Your task to perform on an android device: Clear all items from cart on newegg.com. Search for "logitech g pro" on newegg.com, select the first entry, add it to the cart, then select checkout. Image 0: 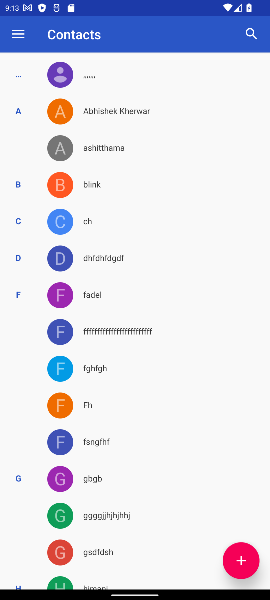
Step 0: press home button
Your task to perform on an android device: Clear all items from cart on newegg.com. Search for "logitech g pro" on newegg.com, select the first entry, add it to the cart, then select checkout. Image 1: 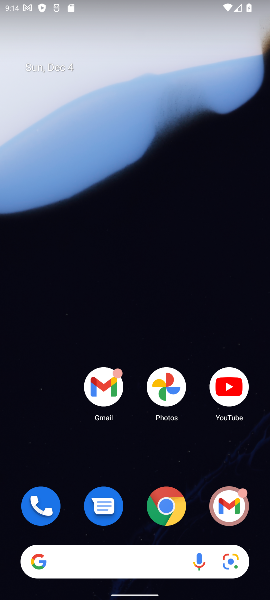
Step 1: click (166, 509)
Your task to perform on an android device: Clear all items from cart on newegg.com. Search for "logitech g pro" on newegg.com, select the first entry, add it to the cart, then select checkout. Image 2: 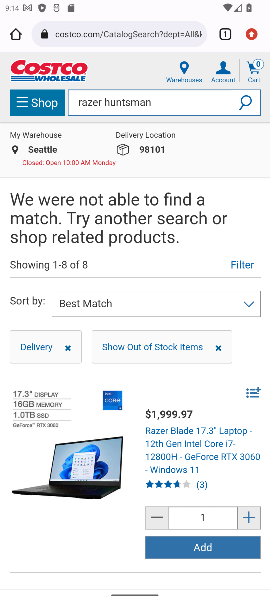
Step 2: click (142, 40)
Your task to perform on an android device: Clear all items from cart on newegg.com. Search for "logitech g pro" on newegg.com, select the first entry, add it to the cart, then select checkout. Image 3: 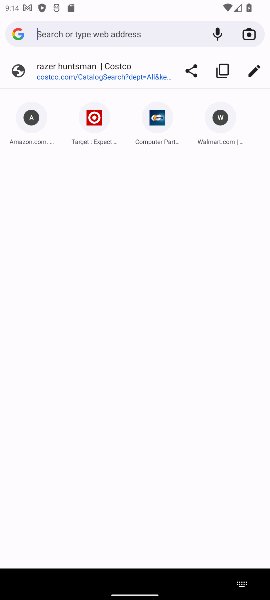
Step 3: type "newegg"
Your task to perform on an android device: Clear all items from cart on newegg.com. Search for "logitech g pro" on newegg.com, select the first entry, add it to the cart, then select checkout. Image 4: 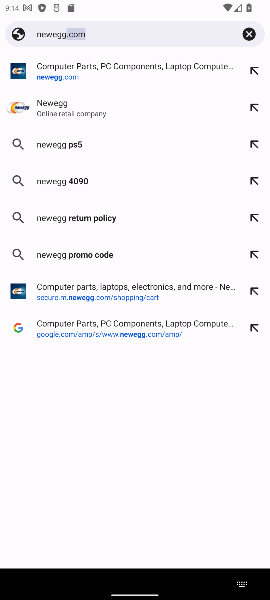
Step 4: click (38, 116)
Your task to perform on an android device: Clear all items from cart on newegg.com. Search for "logitech g pro" on newegg.com, select the first entry, add it to the cart, then select checkout. Image 5: 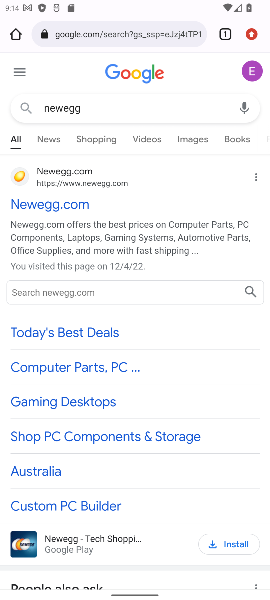
Step 5: click (16, 202)
Your task to perform on an android device: Clear all items from cart on newegg.com. Search for "logitech g pro" on newegg.com, select the first entry, add it to the cart, then select checkout. Image 6: 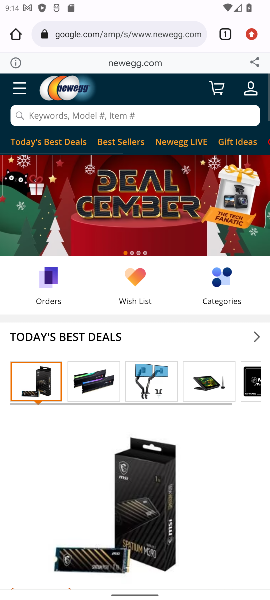
Step 6: click (215, 97)
Your task to perform on an android device: Clear all items from cart on newegg.com. Search for "logitech g pro" on newegg.com, select the first entry, add it to the cart, then select checkout. Image 7: 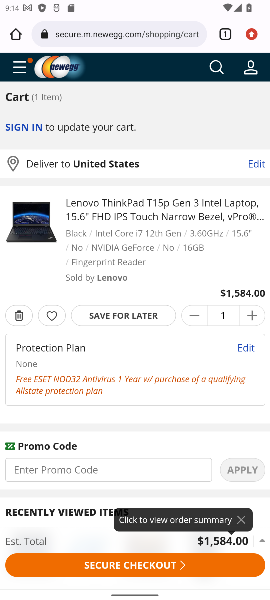
Step 7: click (13, 320)
Your task to perform on an android device: Clear all items from cart on newegg.com. Search for "logitech g pro" on newegg.com, select the first entry, add it to the cart, then select checkout. Image 8: 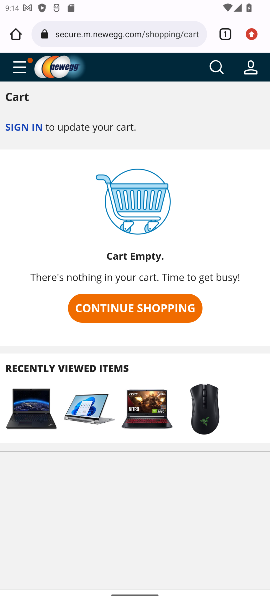
Step 8: click (219, 76)
Your task to perform on an android device: Clear all items from cart on newegg.com. Search for "logitech g pro" on newegg.com, select the first entry, add it to the cart, then select checkout. Image 9: 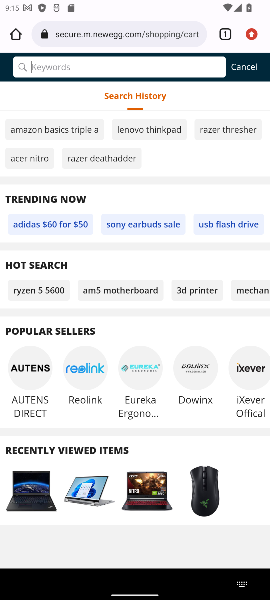
Step 9: type "logitech g pro"
Your task to perform on an android device: Clear all items from cart on newegg.com. Search for "logitech g pro" on newegg.com, select the first entry, add it to the cart, then select checkout. Image 10: 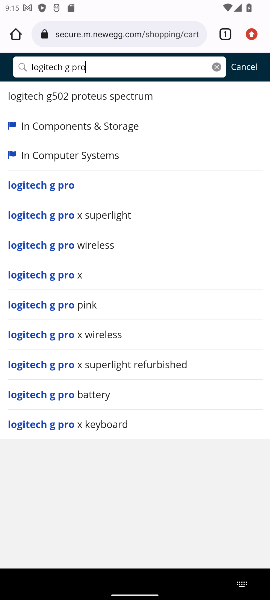
Step 10: click (37, 181)
Your task to perform on an android device: Clear all items from cart on newegg.com. Search for "logitech g pro" on newegg.com, select the first entry, add it to the cart, then select checkout. Image 11: 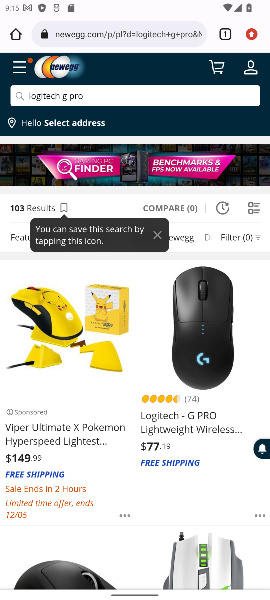
Step 11: click (193, 417)
Your task to perform on an android device: Clear all items from cart on newegg.com. Search for "logitech g pro" on newegg.com, select the first entry, add it to the cart, then select checkout. Image 12: 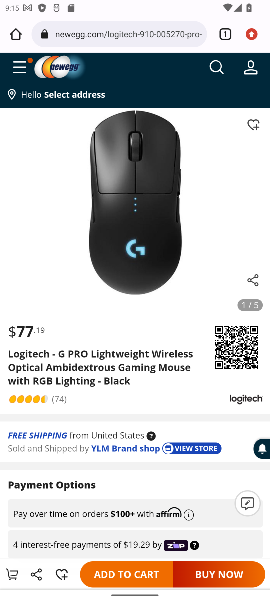
Step 12: click (114, 569)
Your task to perform on an android device: Clear all items from cart on newegg.com. Search for "logitech g pro" on newegg.com, select the first entry, add it to the cart, then select checkout. Image 13: 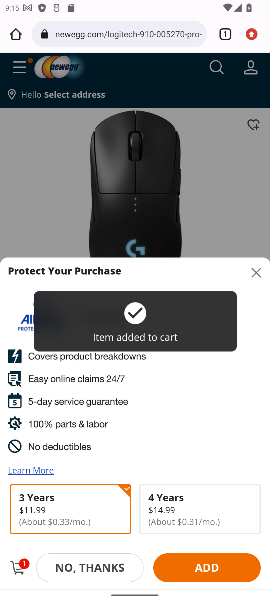
Step 13: click (12, 574)
Your task to perform on an android device: Clear all items from cart on newegg.com. Search for "logitech g pro" on newegg.com, select the first entry, add it to the cart, then select checkout. Image 14: 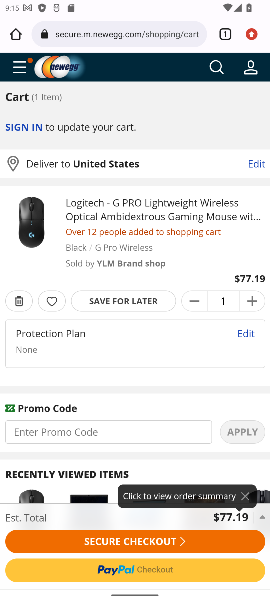
Step 14: click (132, 499)
Your task to perform on an android device: Clear all items from cart on newegg.com. Search for "logitech g pro" on newegg.com, select the first entry, add it to the cart, then select checkout. Image 15: 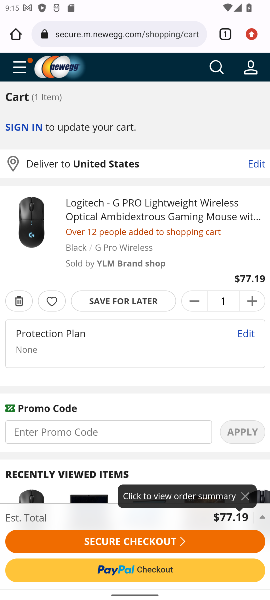
Step 15: click (153, 540)
Your task to perform on an android device: Clear all items from cart on newegg.com. Search for "logitech g pro" on newegg.com, select the first entry, add it to the cart, then select checkout. Image 16: 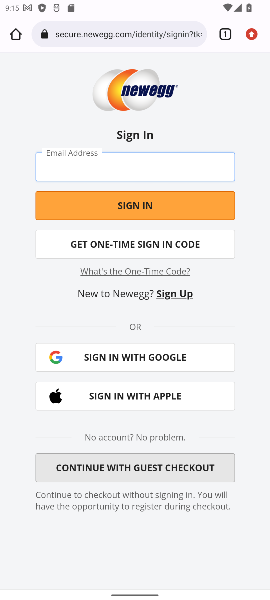
Step 16: task complete